Your task to perform on an android device: Open privacy settings Image 0: 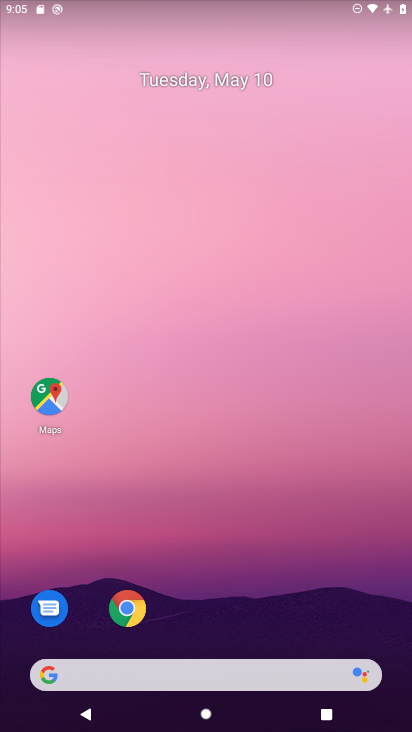
Step 0: drag from (249, 563) to (252, 212)
Your task to perform on an android device: Open privacy settings Image 1: 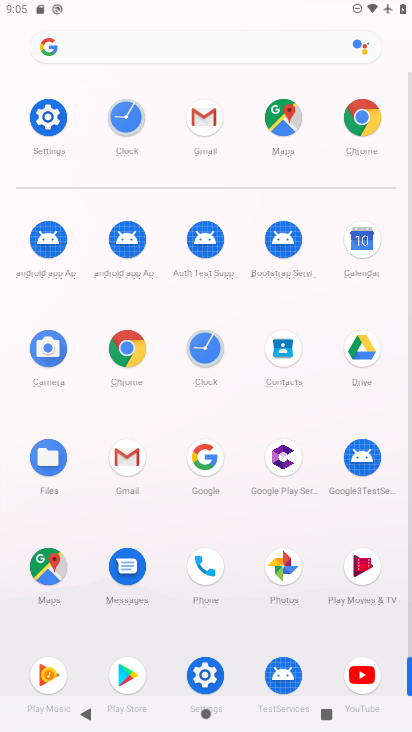
Step 1: click (126, 339)
Your task to perform on an android device: Open privacy settings Image 2: 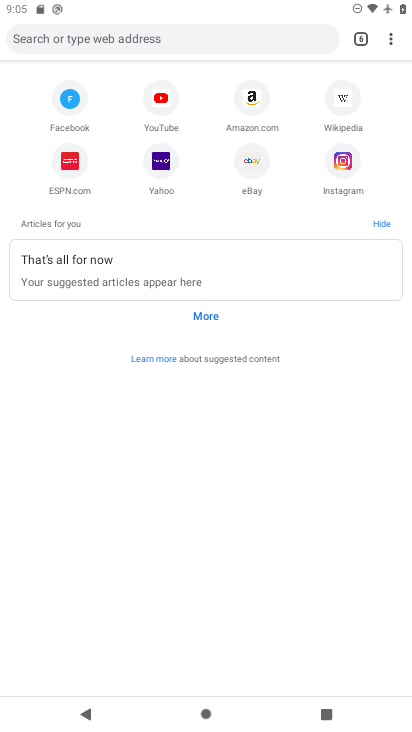
Step 2: click (383, 40)
Your task to perform on an android device: Open privacy settings Image 3: 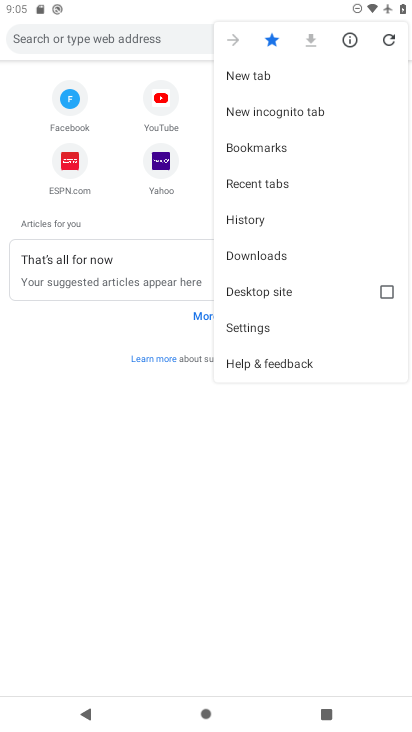
Step 3: click (256, 326)
Your task to perform on an android device: Open privacy settings Image 4: 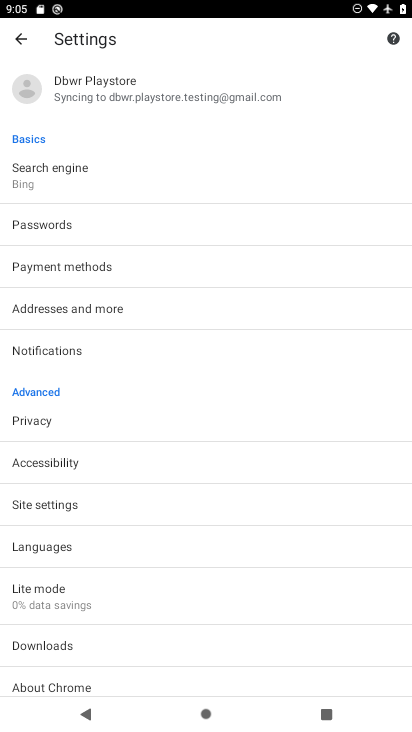
Step 4: click (64, 425)
Your task to perform on an android device: Open privacy settings Image 5: 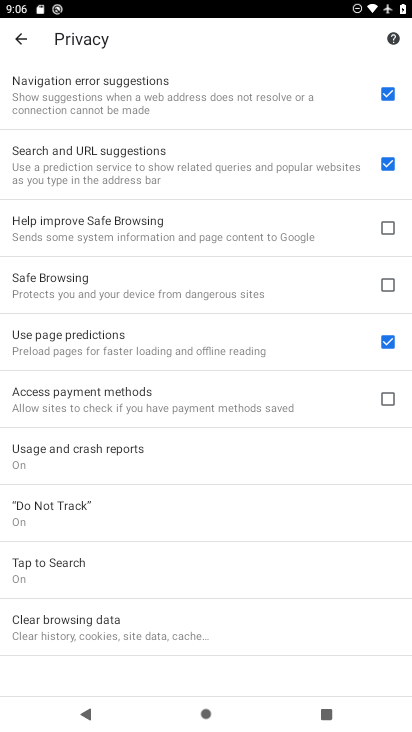
Step 5: task complete